Your task to perform on an android device: read, delete, or share a saved page in the chrome app Image 0: 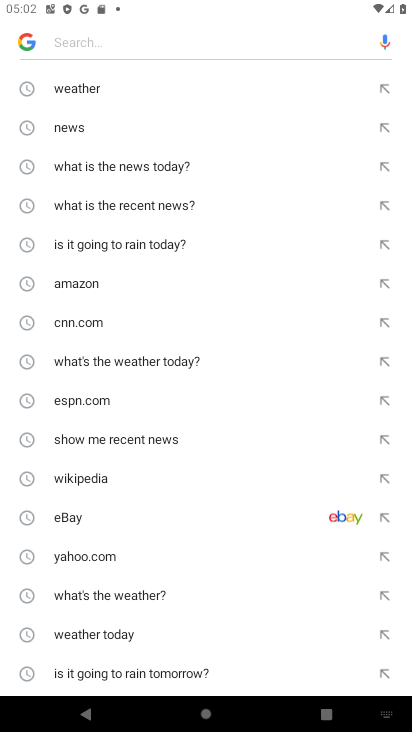
Step 0: press home button
Your task to perform on an android device: read, delete, or share a saved page in the chrome app Image 1: 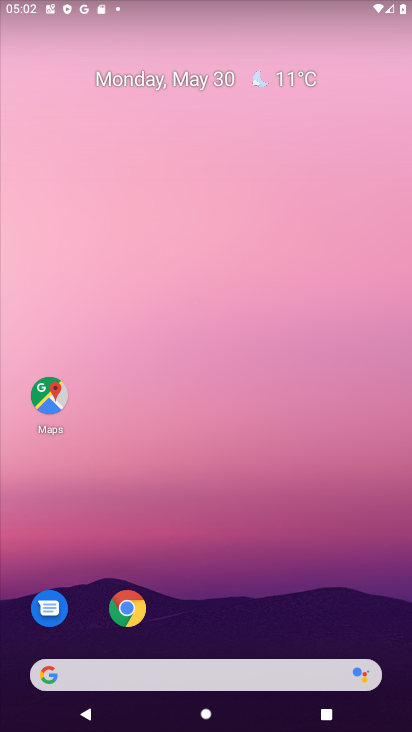
Step 1: click (122, 606)
Your task to perform on an android device: read, delete, or share a saved page in the chrome app Image 2: 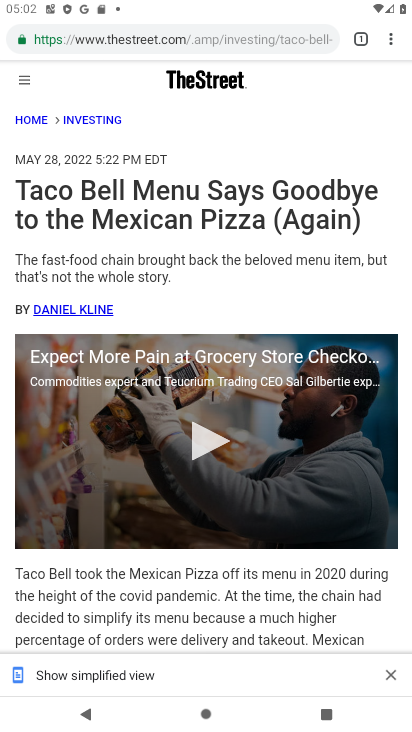
Step 2: click (387, 40)
Your task to perform on an android device: read, delete, or share a saved page in the chrome app Image 3: 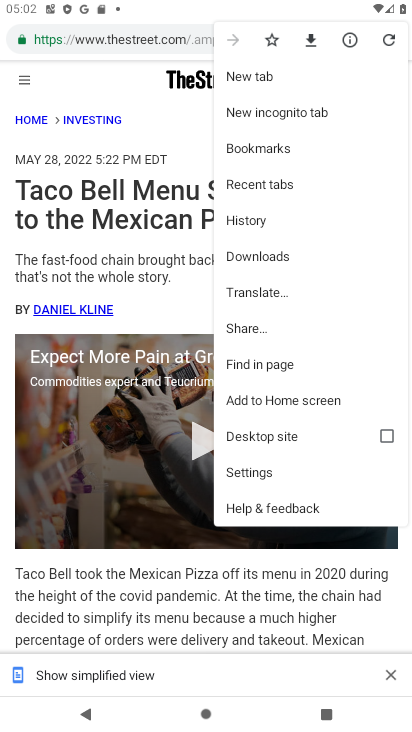
Step 3: click (275, 249)
Your task to perform on an android device: read, delete, or share a saved page in the chrome app Image 4: 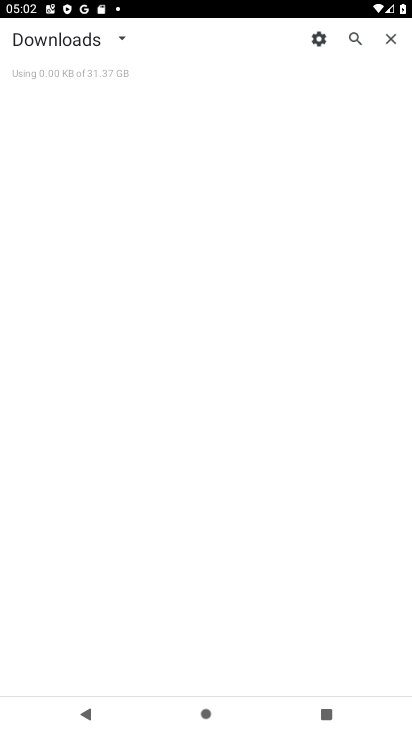
Step 4: click (126, 38)
Your task to perform on an android device: read, delete, or share a saved page in the chrome app Image 5: 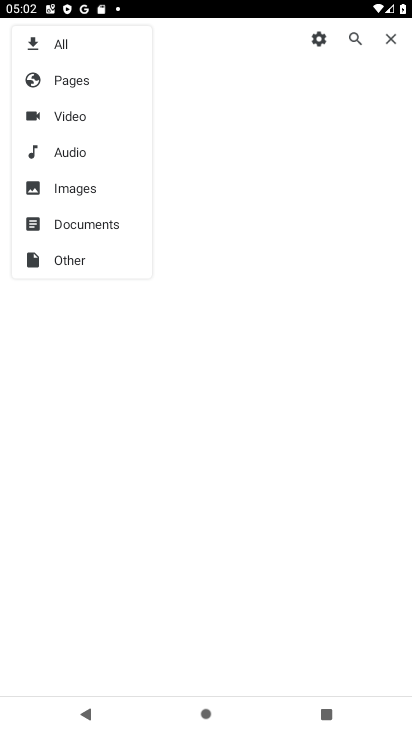
Step 5: click (65, 77)
Your task to perform on an android device: read, delete, or share a saved page in the chrome app Image 6: 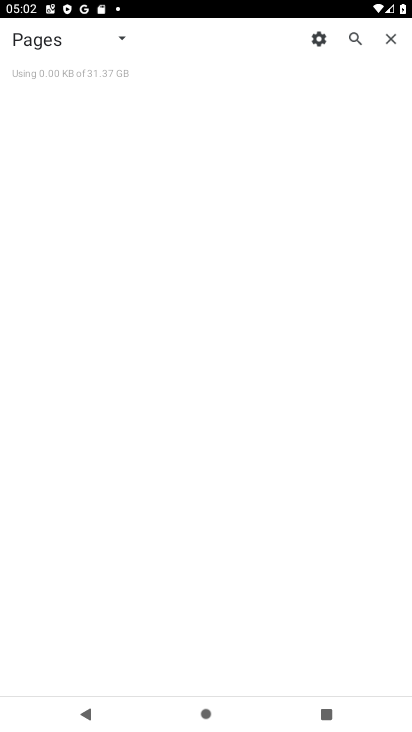
Step 6: task complete